Your task to perform on an android device: Open Youtube and go to "Your channel" Image 0: 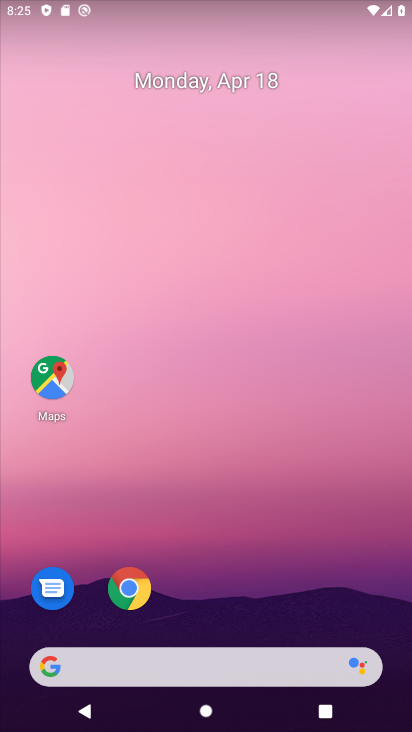
Step 0: drag from (19, 511) to (300, 90)
Your task to perform on an android device: Open Youtube and go to "Your channel" Image 1: 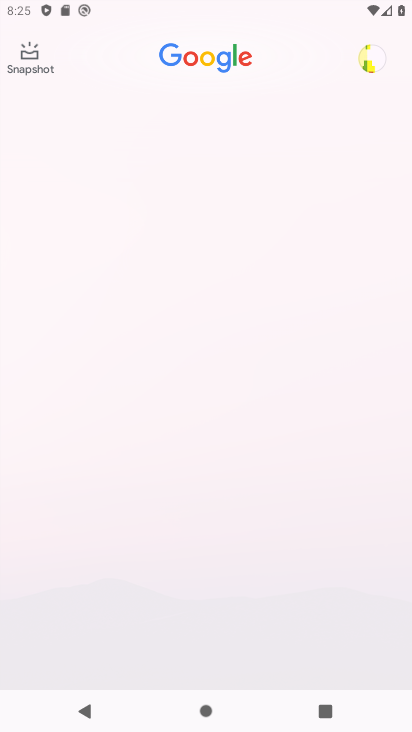
Step 1: press home button
Your task to perform on an android device: Open Youtube and go to "Your channel" Image 2: 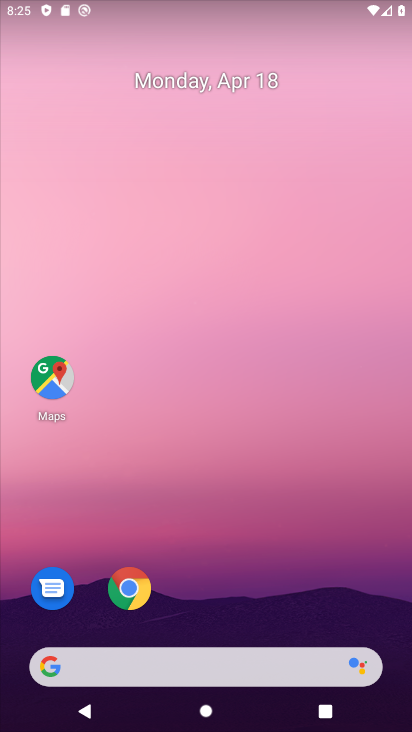
Step 2: drag from (39, 524) to (278, 79)
Your task to perform on an android device: Open Youtube and go to "Your channel" Image 3: 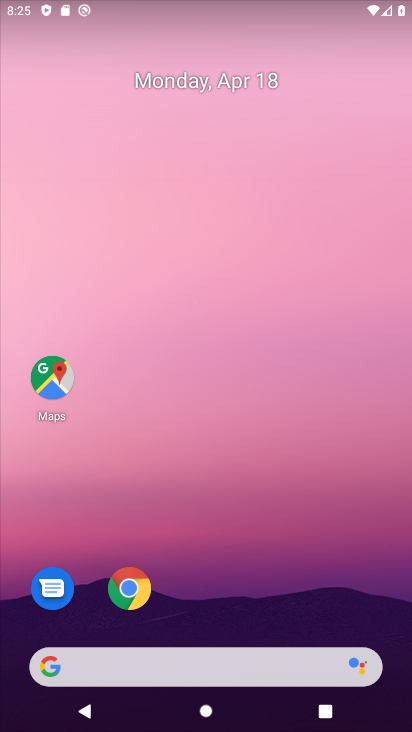
Step 3: drag from (237, 630) to (338, 88)
Your task to perform on an android device: Open Youtube and go to "Your channel" Image 4: 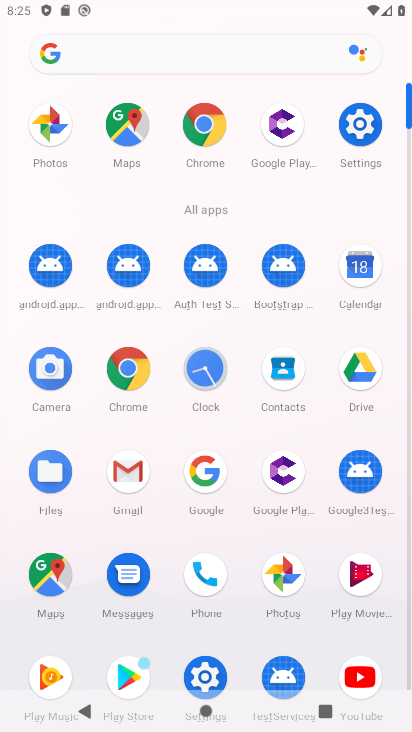
Step 4: click (353, 673)
Your task to perform on an android device: Open Youtube and go to "Your channel" Image 5: 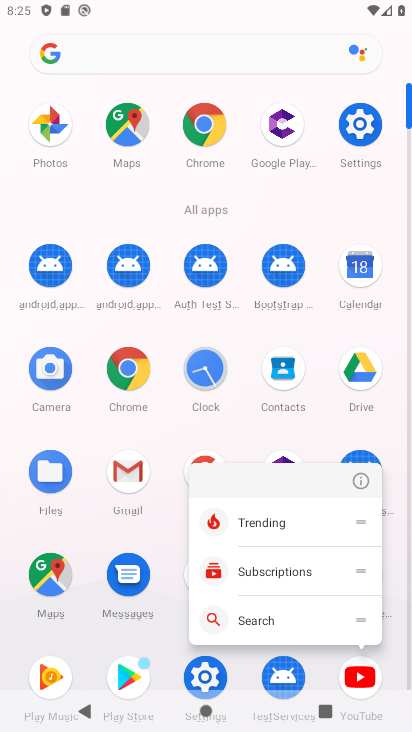
Step 5: click (352, 673)
Your task to perform on an android device: Open Youtube and go to "Your channel" Image 6: 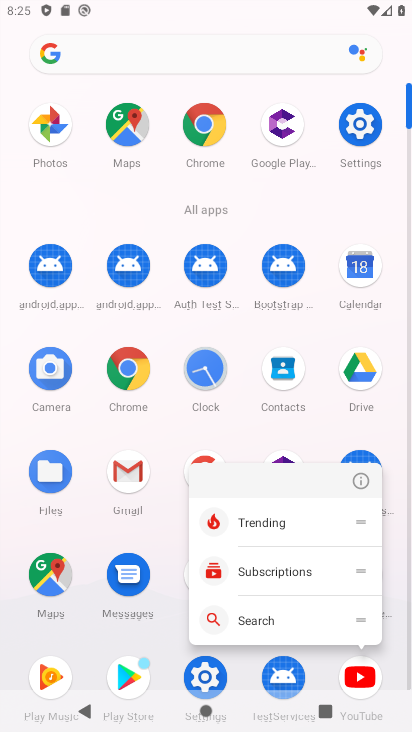
Step 6: click (352, 673)
Your task to perform on an android device: Open Youtube and go to "Your channel" Image 7: 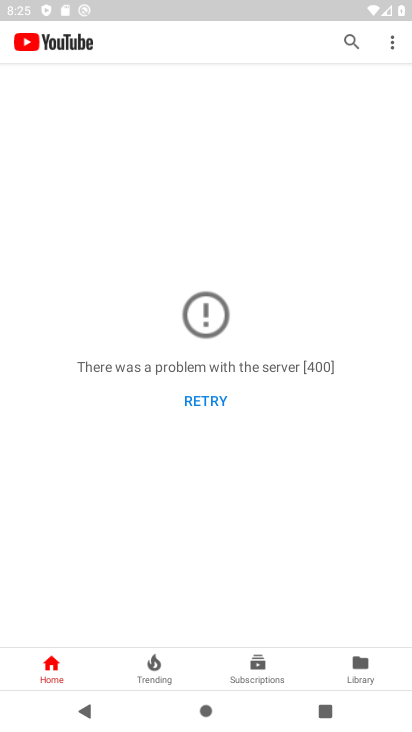
Step 7: click (349, 664)
Your task to perform on an android device: Open Youtube and go to "Your channel" Image 8: 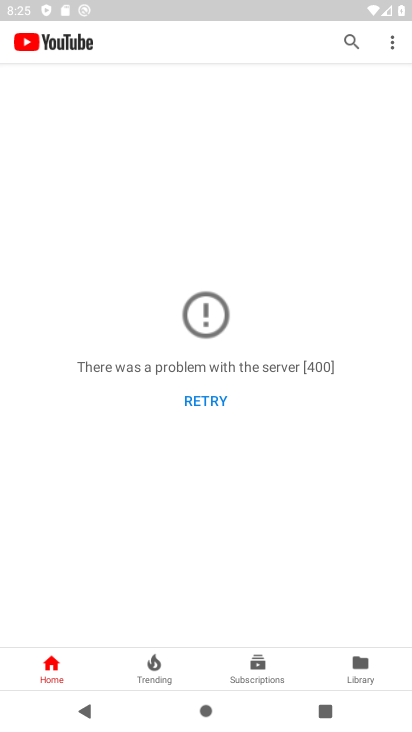
Step 8: click (195, 402)
Your task to perform on an android device: Open Youtube and go to "Your channel" Image 9: 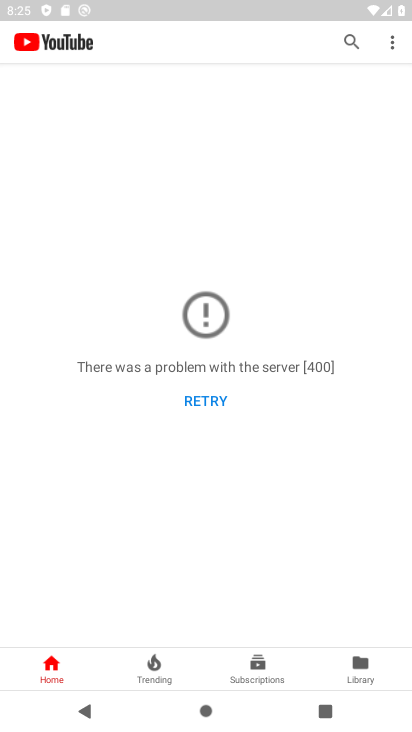
Step 9: click (195, 403)
Your task to perform on an android device: Open Youtube and go to "Your channel" Image 10: 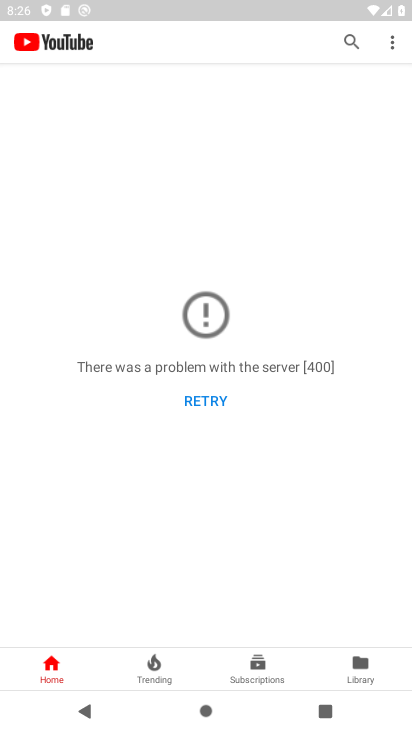
Step 10: click (200, 409)
Your task to perform on an android device: Open Youtube and go to "Your channel" Image 11: 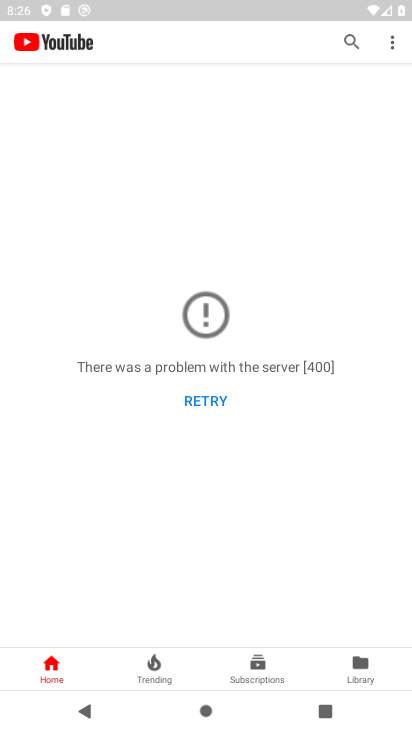
Step 11: task complete